Your task to perform on an android device: toggle translation in the chrome app Image 0: 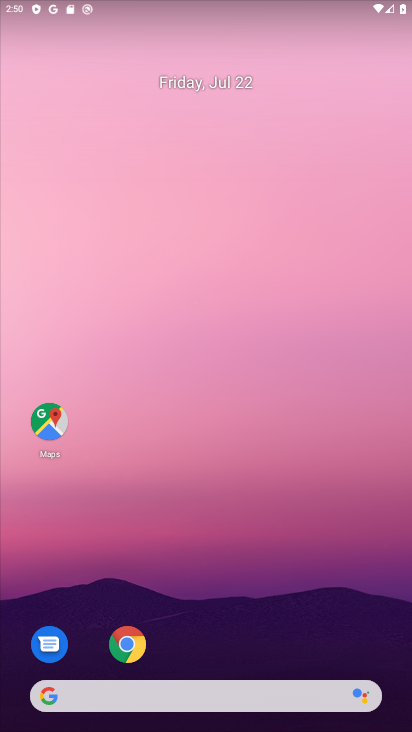
Step 0: drag from (281, 592) to (246, 301)
Your task to perform on an android device: toggle translation in the chrome app Image 1: 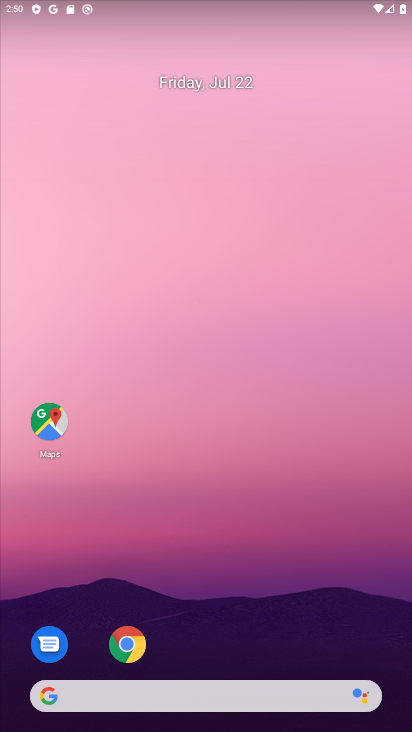
Step 1: click (122, 649)
Your task to perform on an android device: toggle translation in the chrome app Image 2: 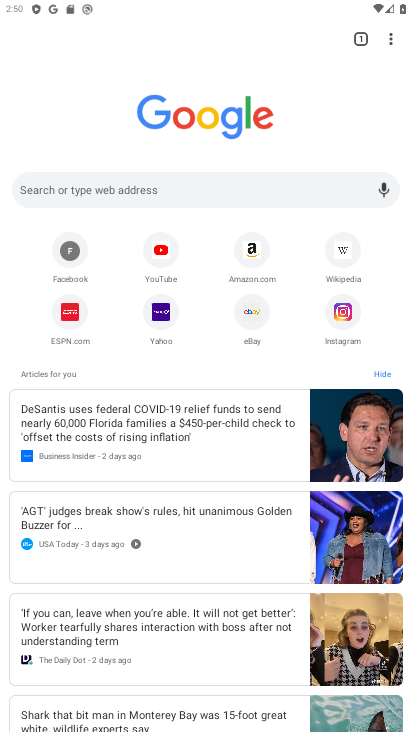
Step 2: click (396, 44)
Your task to perform on an android device: toggle translation in the chrome app Image 3: 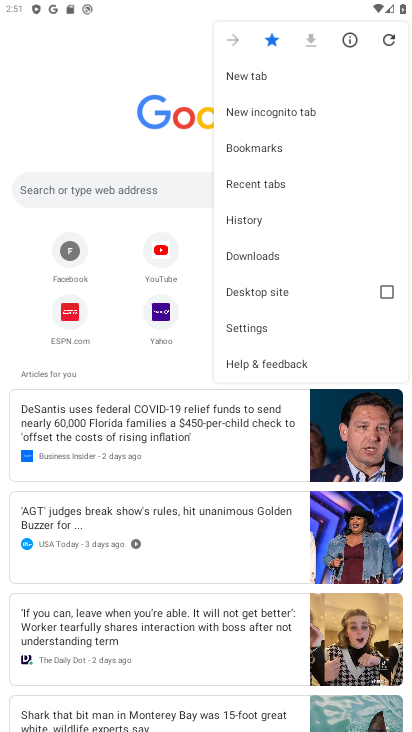
Step 3: task complete